Your task to perform on an android device: What's the weather going to be this weekend? Image 0: 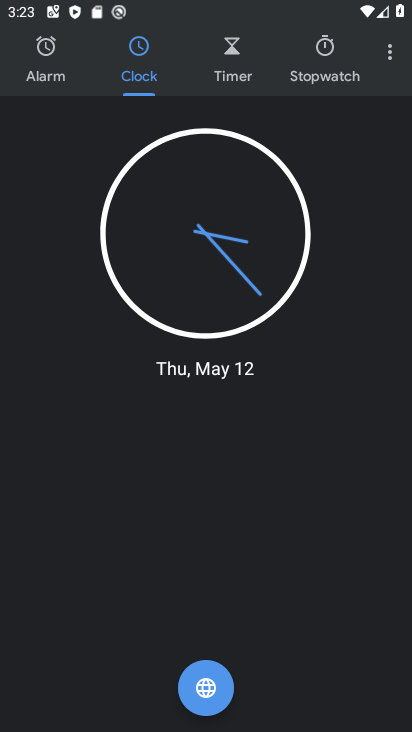
Step 0: press home button
Your task to perform on an android device: What's the weather going to be this weekend? Image 1: 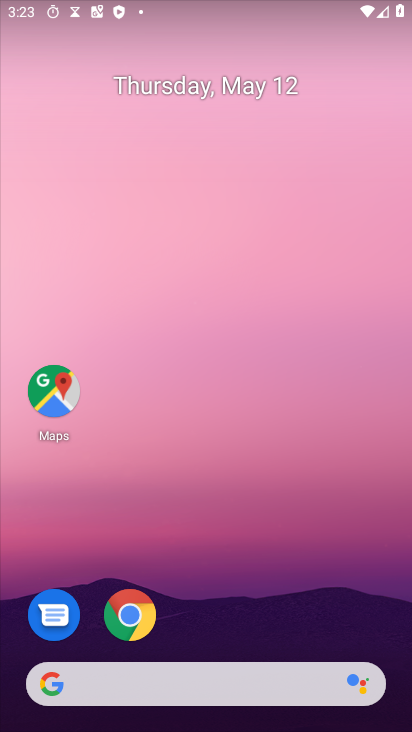
Step 1: click (119, 597)
Your task to perform on an android device: What's the weather going to be this weekend? Image 2: 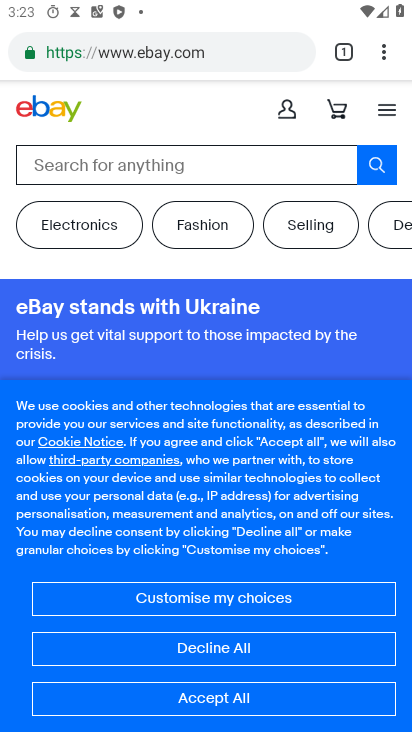
Step 2: press home button
Your task to perform on an android device: What's the weather going to be this weekend? Image 3: 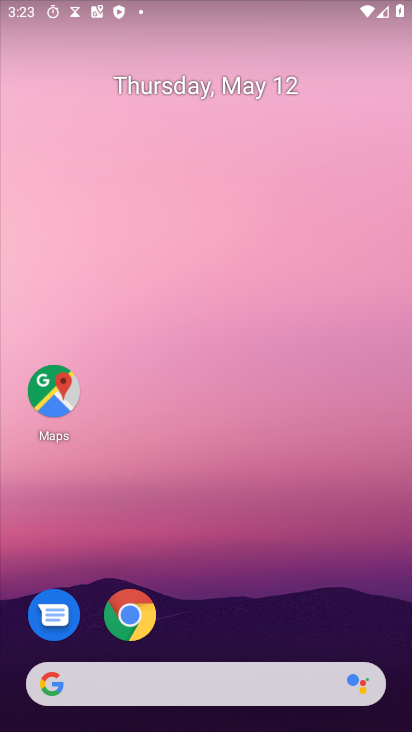
Step 3: click (105, 674)
Your task to perform on an android device: What's the weather going to be this weekend? Image 4: 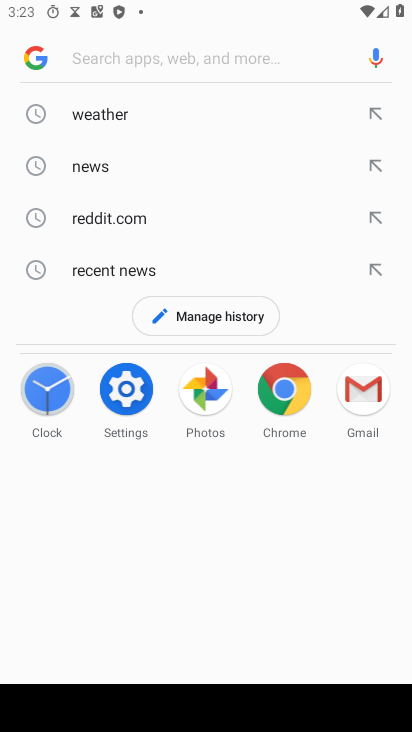
Step 4: click (152, 50)
Your task to perform on an android device: What's the weather going to be this weekend? Image 5: 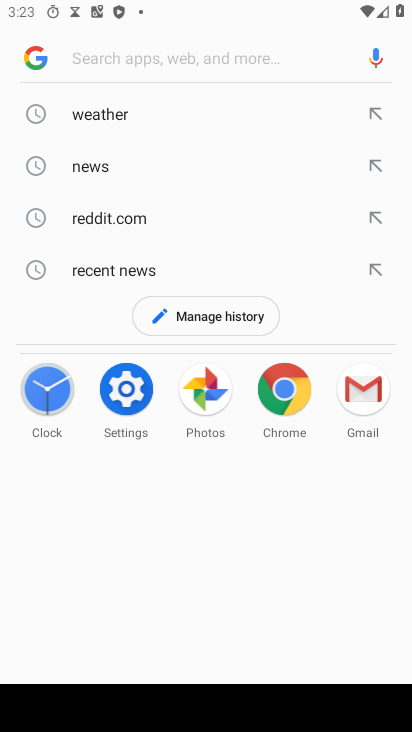
Step 5: click (98, 113)
Your task to perform on an android device: What's the weather going to be this weekend? Image 6: 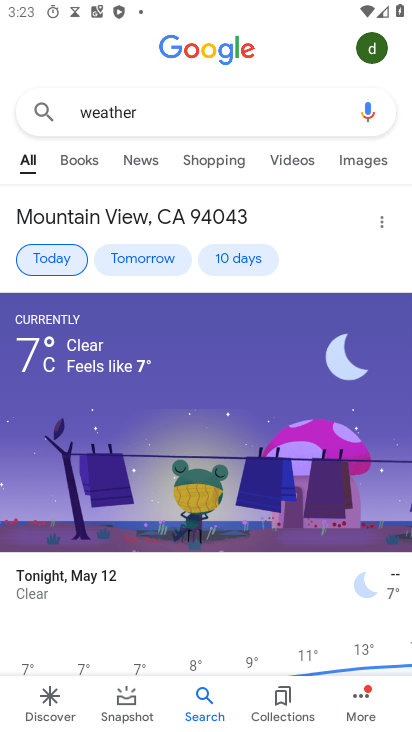
Step 6: click (230, 253)
Your task to perform on an android device: What's the weather going to be this weekend? Image 7: 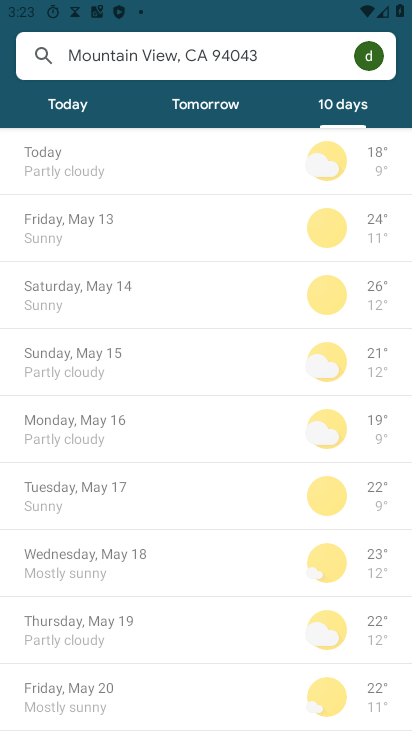
Step 7: task complete